Your task to perform on an android device: Check the weather Image 0: 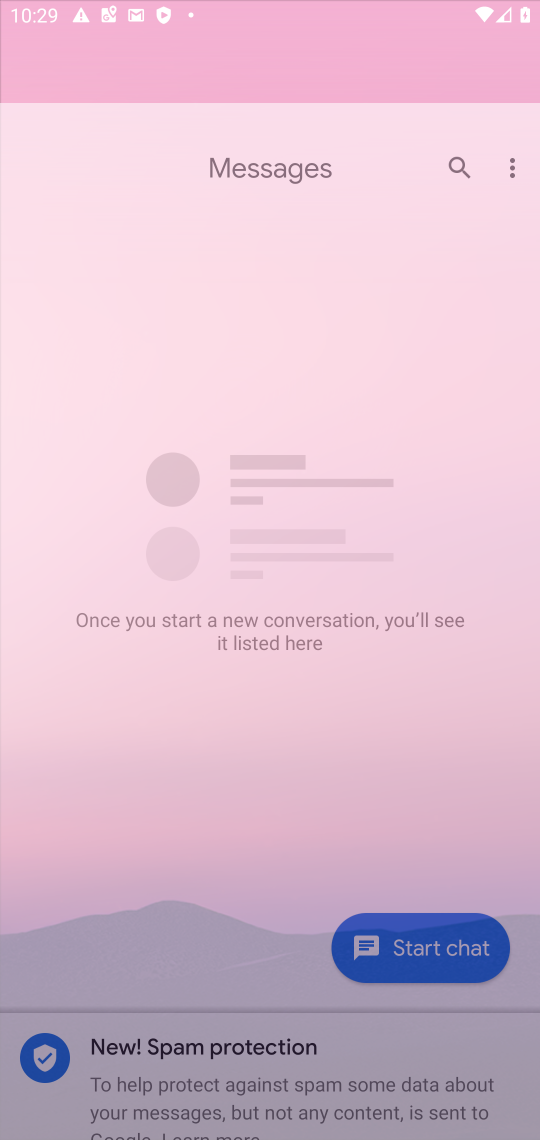
Step 0: press home button
Your task to perform on an android device: Check the weather Image 1: 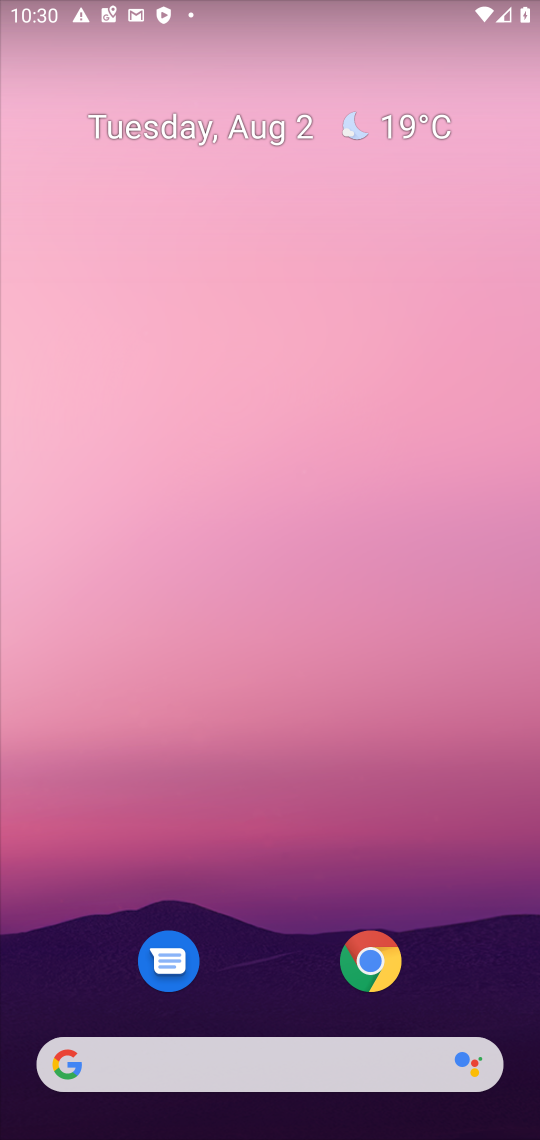
Step 1: click (363, 956)
Your task to perform on an android device: Check the weather Image 2: 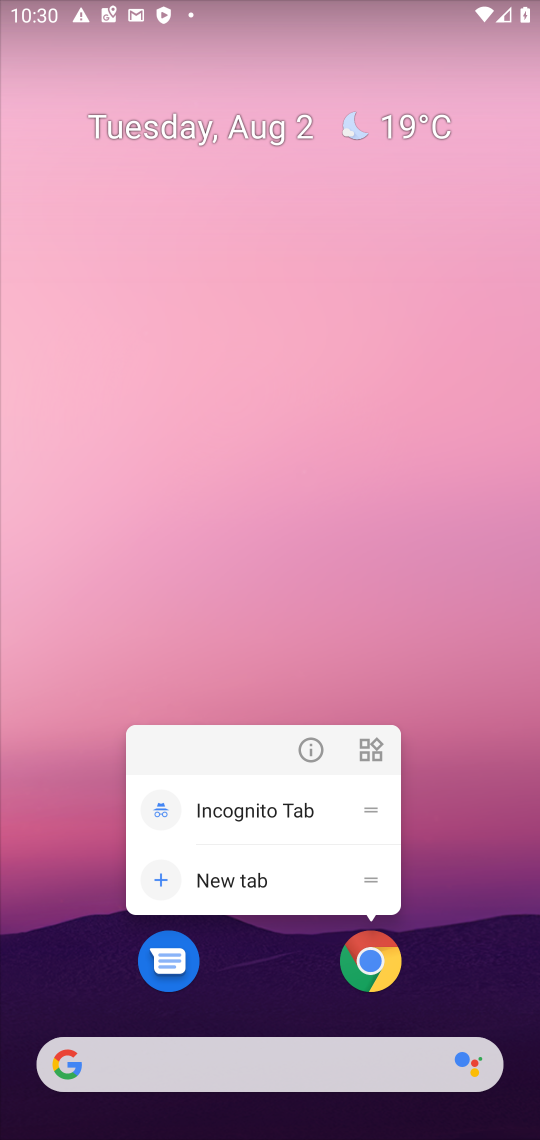
Step 2: click (375, 947)
Your task to perform on an android device: Check the weather Image 3: 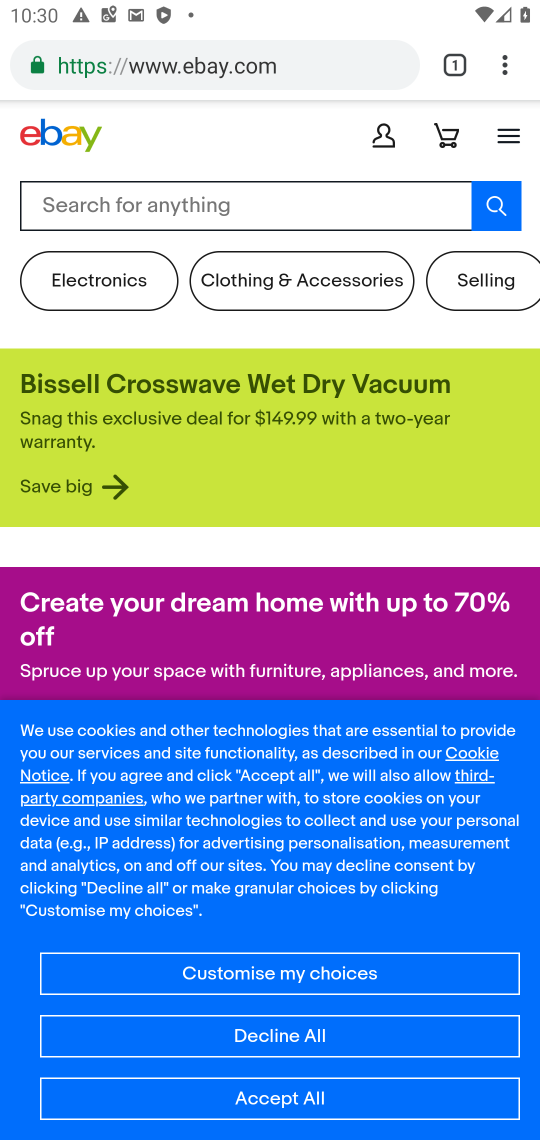
Step 3: click (91, 75)
Your task to perform on an android device: Check the weather Image 4: 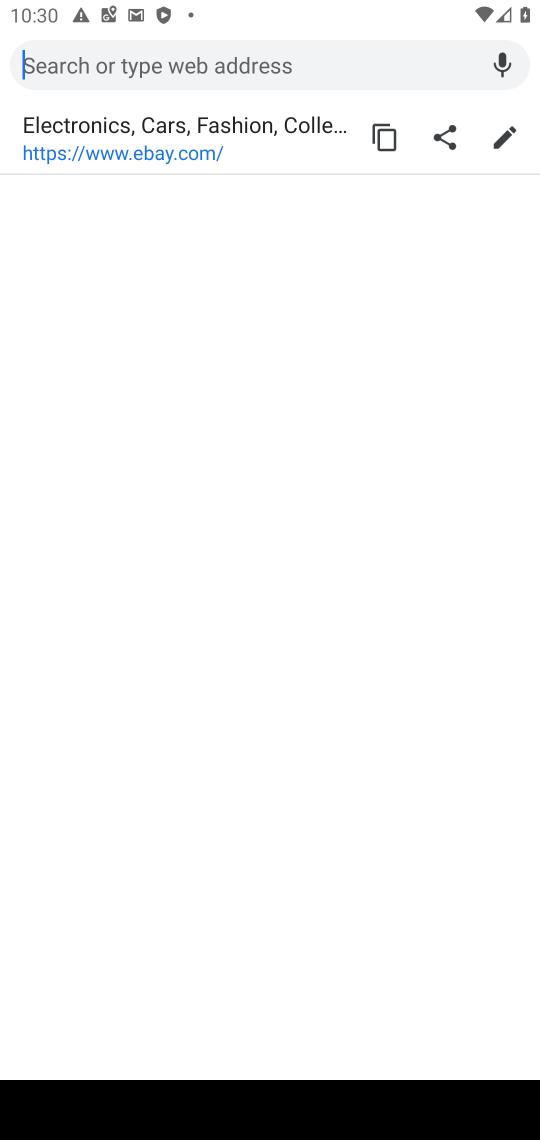
Step 4: click (148, 71)
Your task to perform on an android device: Check the weather Image 5: 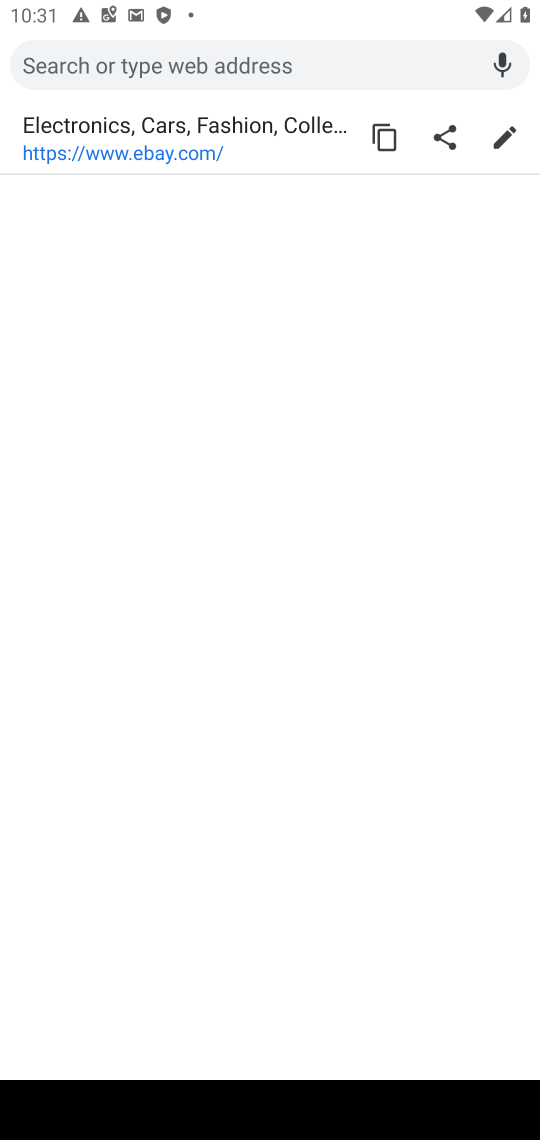
Step 5: type "weather"
Your task to perform on an android device: Check the weather Image 6: 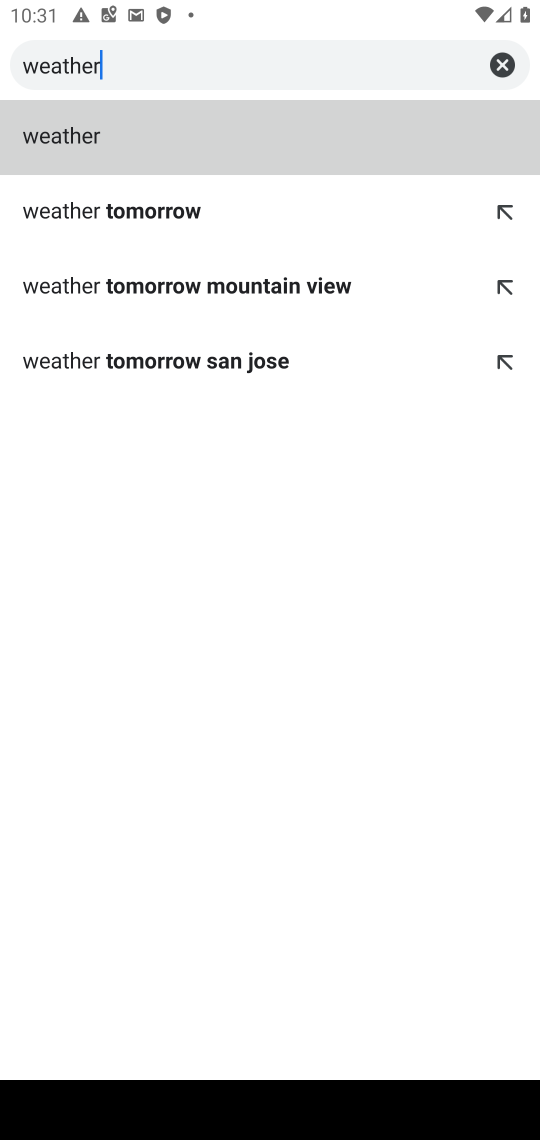
Step 6: type ""
Your task to perform on an android device: Check the weather Image 7: 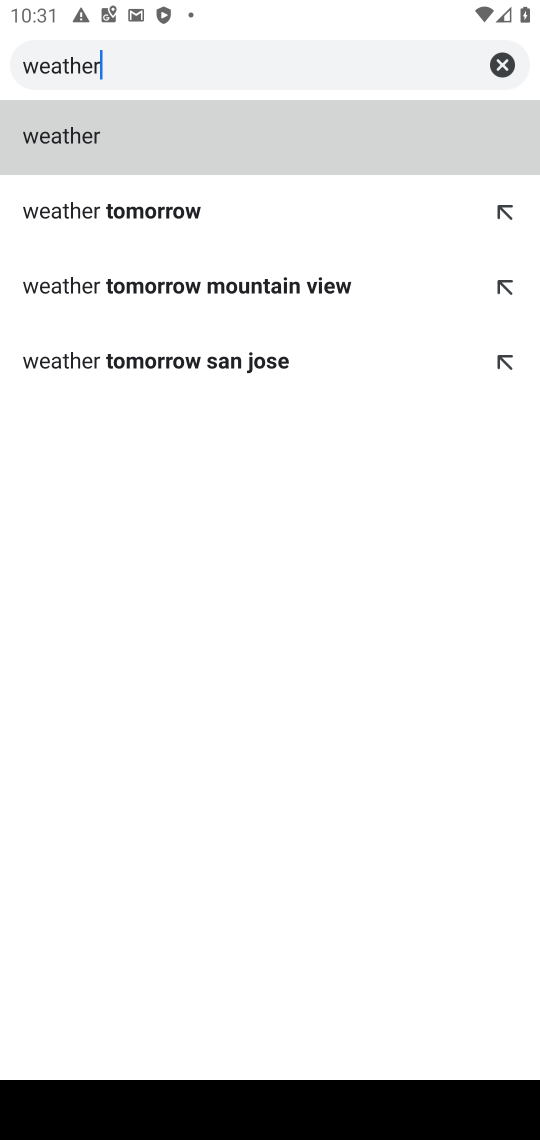
Step 7: click (154, 132)
Your task to perform on an android device: Check the weather Image 8: 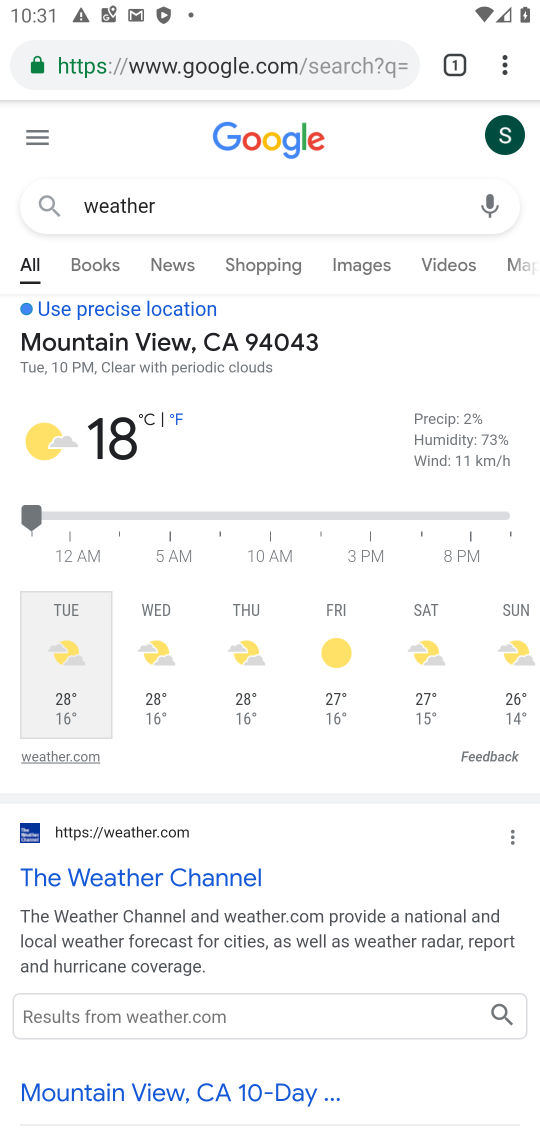
Step 8: task complete